Your task to perform on an android device: Is it going to rain tomorrow? Image 0: 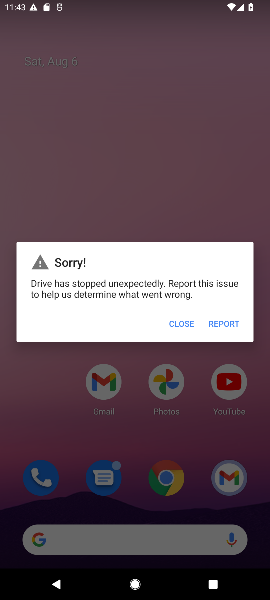
Step 0: press home button
Your task to perform on an android device: Is it going to rain tomorrow? Image 1: 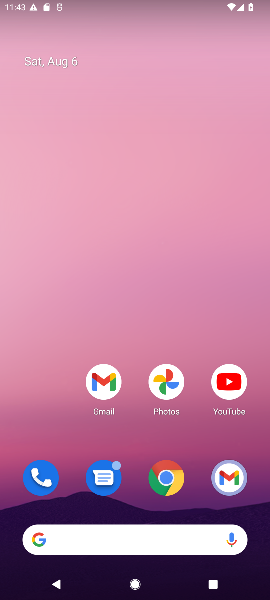
Step 1: drag from (128, 525) to (103, 172)
Your task to perform on an android device: Is it going to rain tomorrow? Image 2: 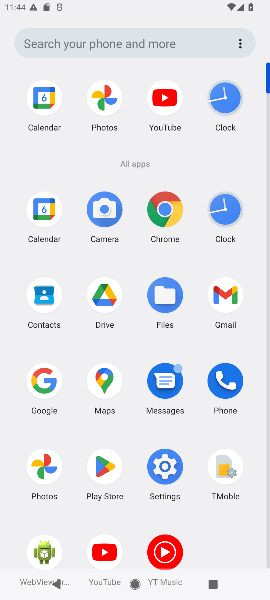
Step 2: click (47, 371)
Your task to perform on an android device: Is it going to rain tomorrow? Image 3: 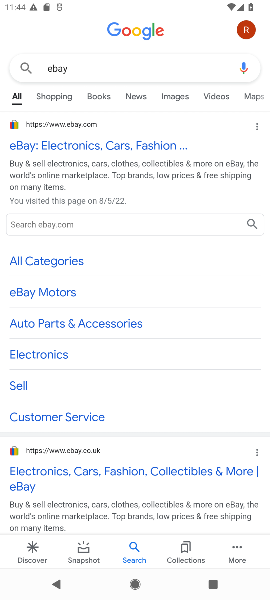
Step 3: click (86, 68)
Your task to perform on an android device: Is it going to rain tomorrow? Image 4: 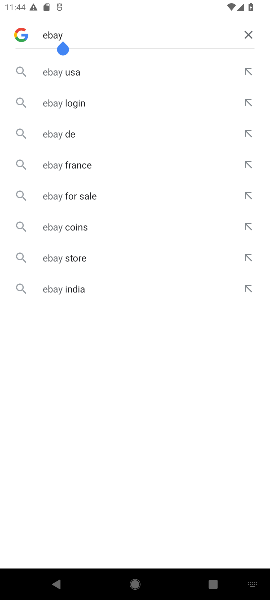
Step 4: click (253, 32)
Your task to perform on an android device: Is it going to rain tomorrow? Image 5: 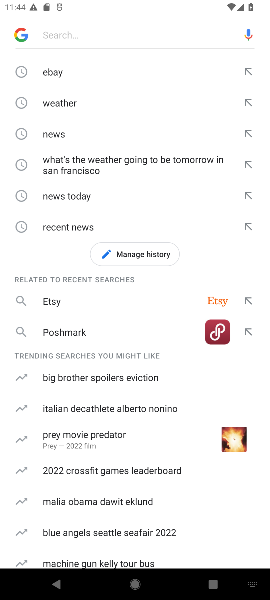
Step 5: click (131, 256)
Your task to perform on an android device: Is it going to rain tomorrow? Image 6: 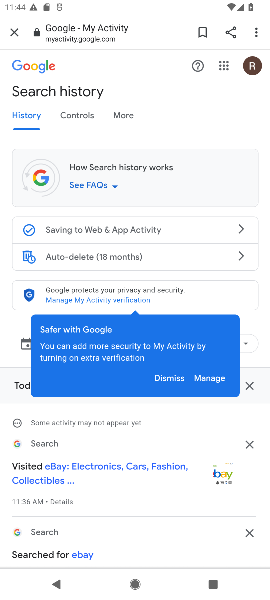
Step 6: click (15, 29)
Your task to perform on an android device: Is it going to rain tomorrow? Image 7: 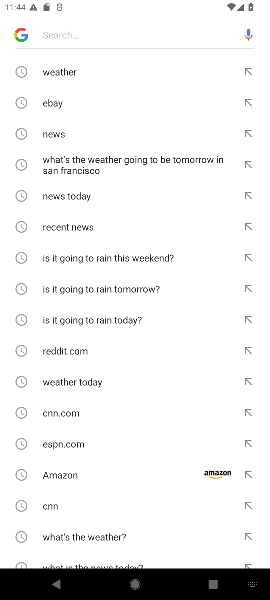
Step 7: click (112, 288)
Your task to perform on an android device: Is it going to rain tomorrow? Image 8: 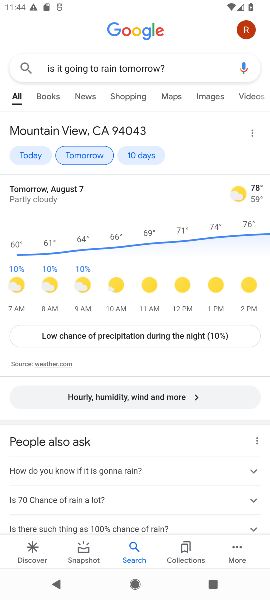
Step 8: task complete